Your task to perform on an android device: check battery use Image 0: 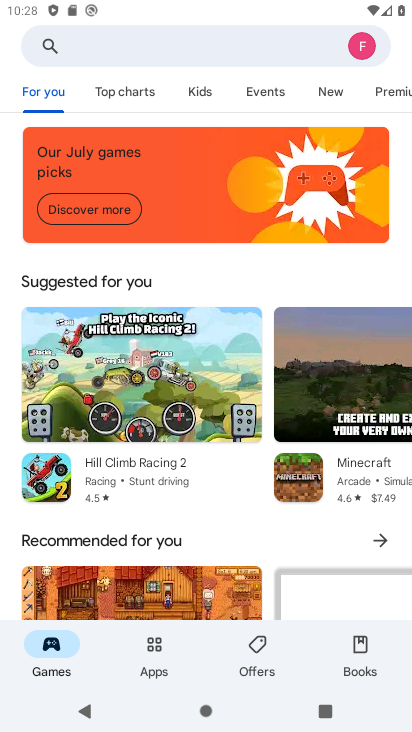
Step 0: press home button
Your task to perform on an android device: check battery use Image 1: 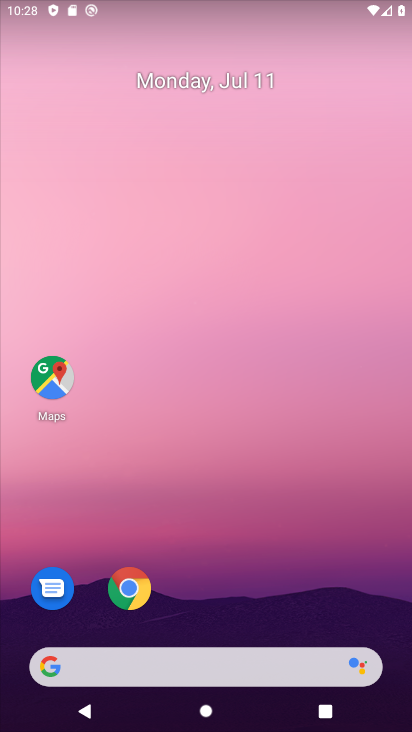
Step 1: drag from (271, 532) to (222, 126)
Your task to perform on an android device: check battery use Image 2: 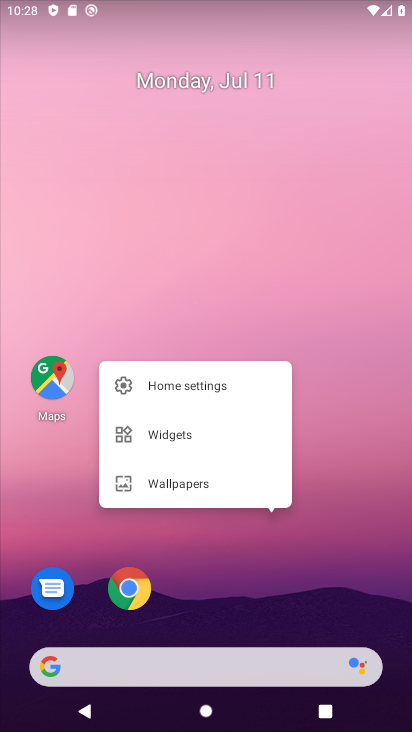
Step 2: click (194, 277)
Your task to perform on an android device: check battery use Image 3: 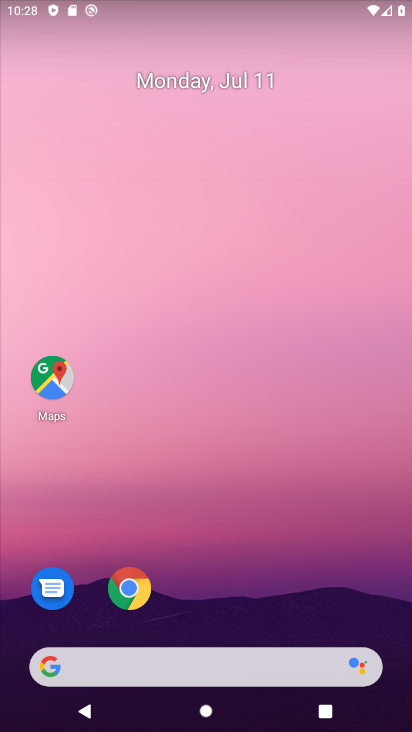
Step 3: drag from (244, 581) to (221, 223)
Your task to perform on an android device: check battery use Image 4: 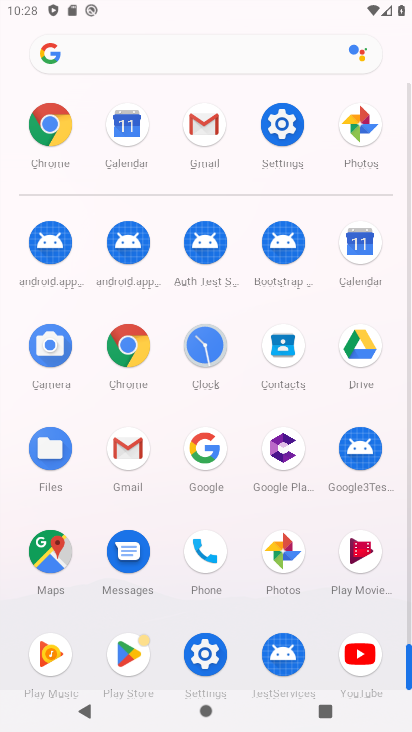
Step 4: click (290, 133)
Your task to perform on an android device: check battery use Image 5: 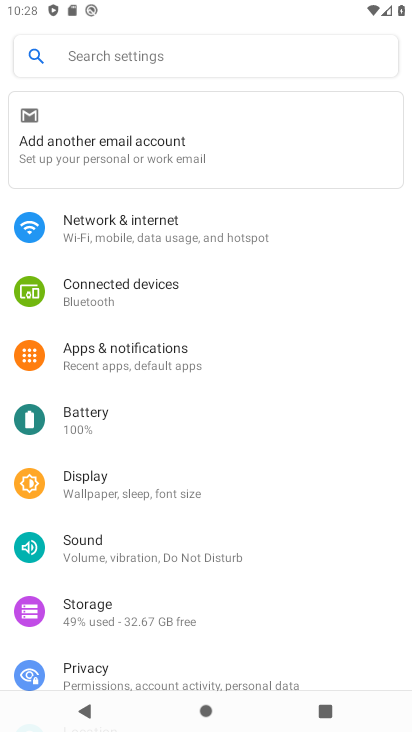
Step 5: click (85, 416)
Your task to perform on an android device: check battery use Image 6: 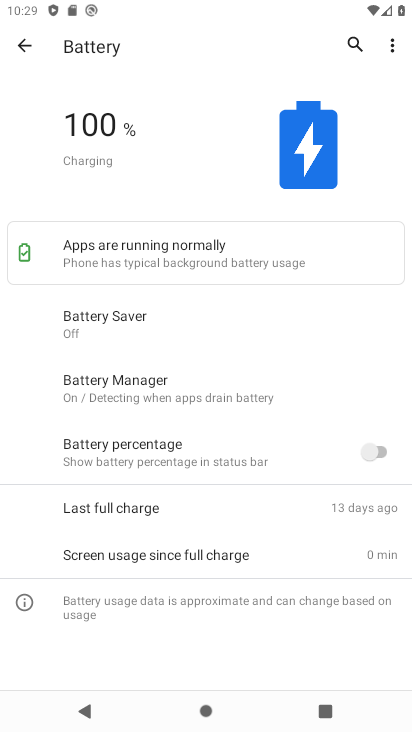
Step 6: task complete